Your task to perform on an android device: turn on airplane mode Image 0: 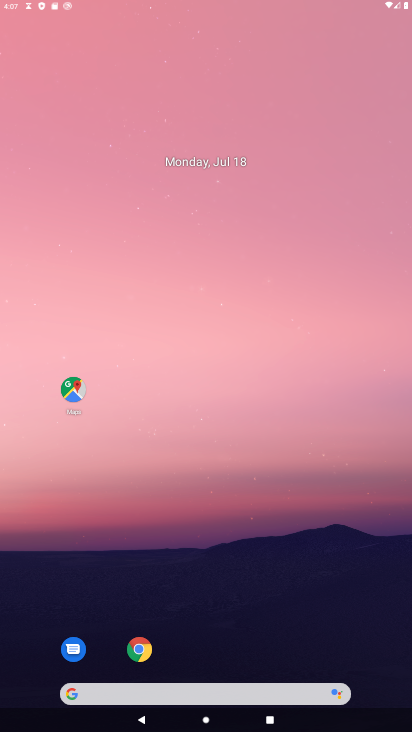
Step 0: press home button
Your task to perform on an android device: turn on airplane mode Image 1: 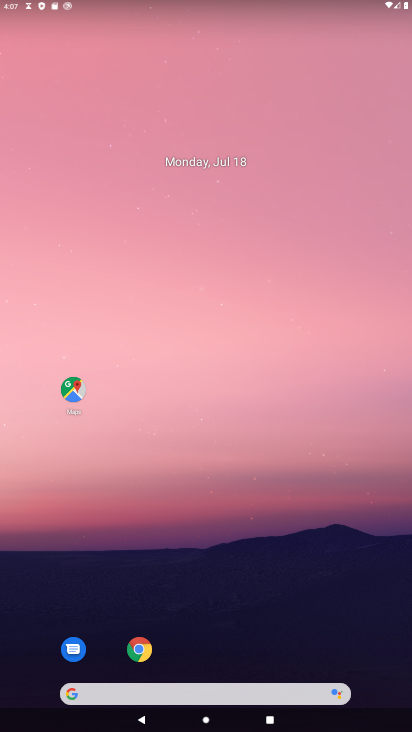
Step 1: drag from (278, 1) to (233, 472)
Your task to perform on an android device: turn on airplane mode Image 2: 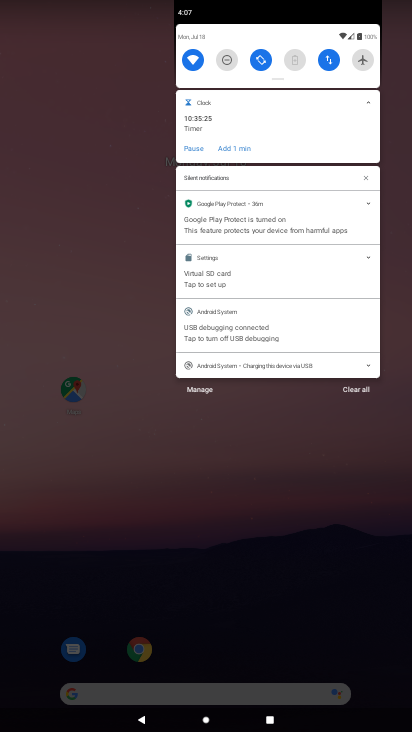
Step 2: click (366, 60)
Your task to perform on an android device: turn on airplane mode Image 3: 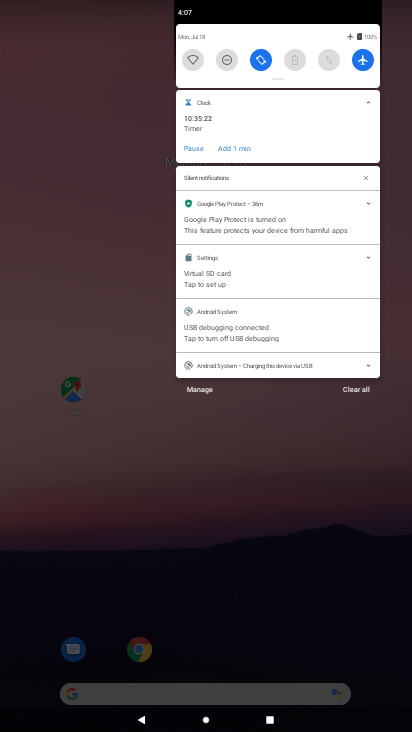
Step 3: task complete